Your task to perform on an android device: turn off priority inbox in the gmail app Image 0: 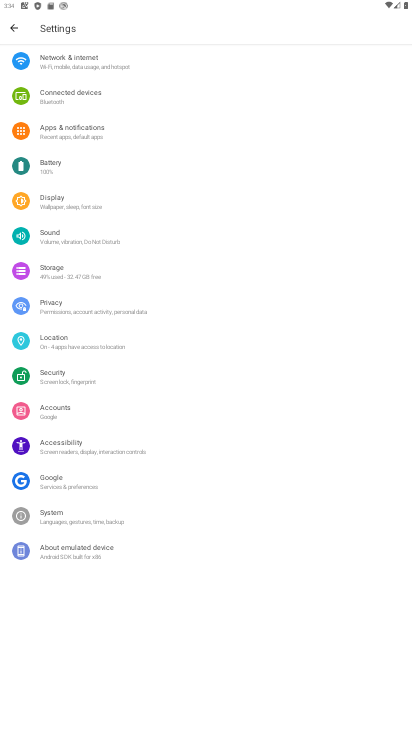
Step 0: press home button
Your task to perform on an android device: turn off priority inbox in the gmail app Image 1: 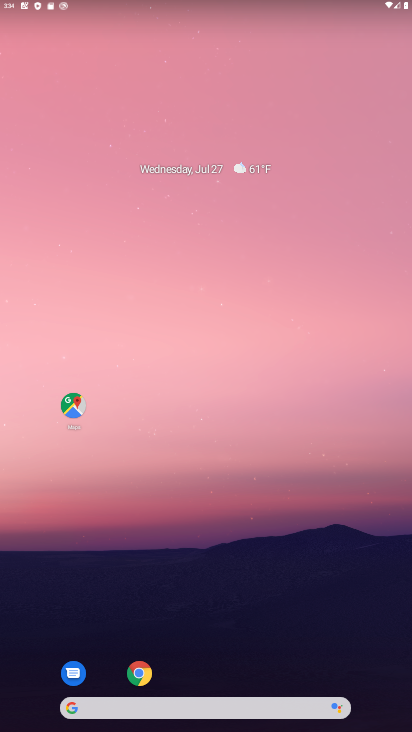
Step 1: drag from (196, 556) to (180, 221)
Your task to perform on an android device: turn off priority inbox in the gmail app Image 2: 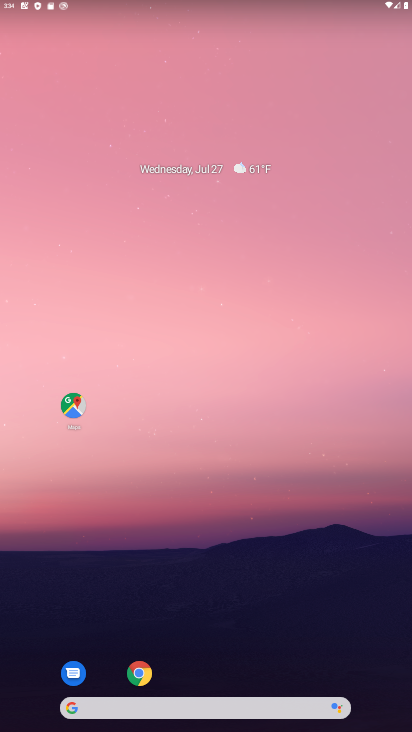
Step 2: drag from (289, 607) to (246, 63)
Your task to perform on an android device: turn off priority inbox in the gmail app Image 3: 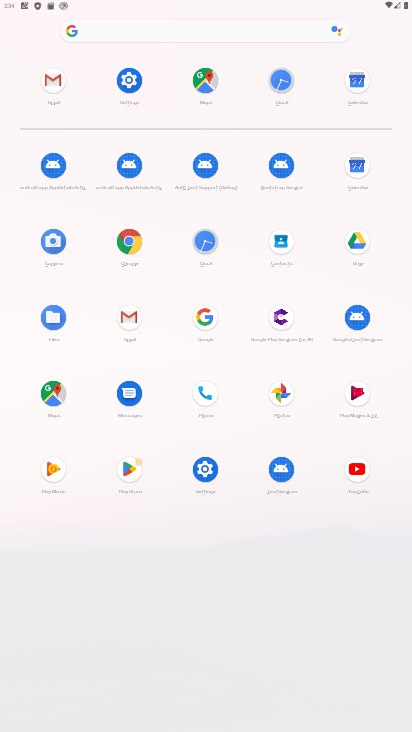
Step 3: click (128, 323)
Your task to perform on an android device: turn off priority inbox in the gmail app Image 4: 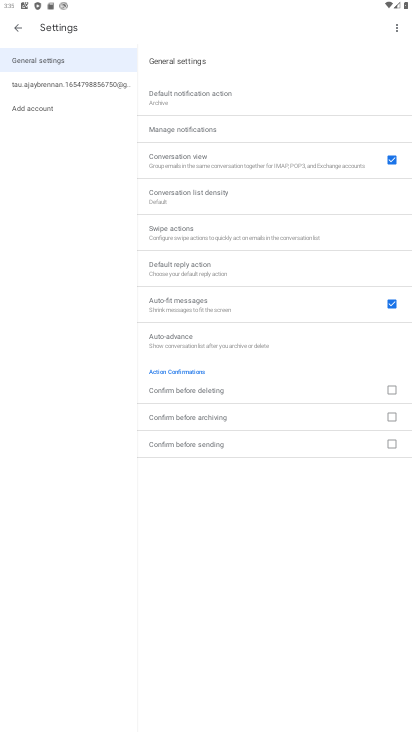
Step 4: click (100, 84)
Your task to perform on an android device: turn off priority inbox in the gmail app Image 5: 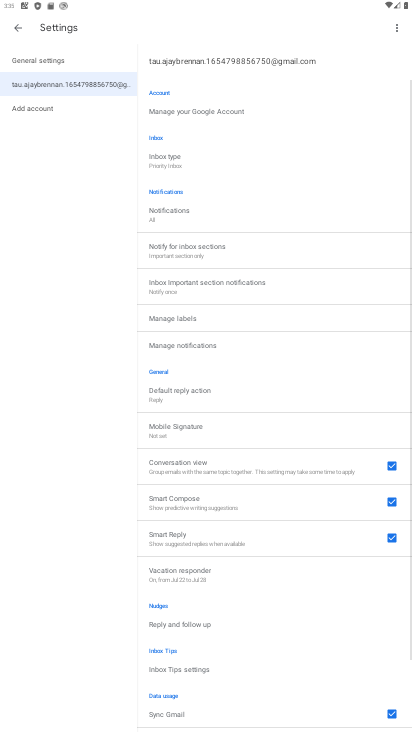
Step 5: click (193, 160)
Your task to perform on an android device: turn off priority inbox in the gmail app Image 6: 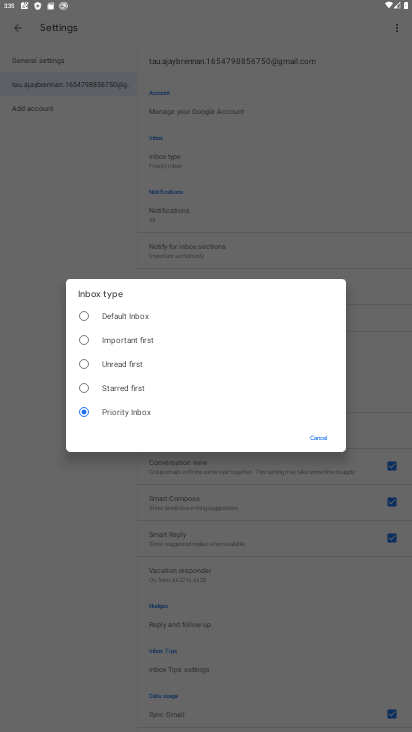
Step 6: click (100, 313)
Your task to perform on an android device: turn off priority inbox in the gmail app Image 7: 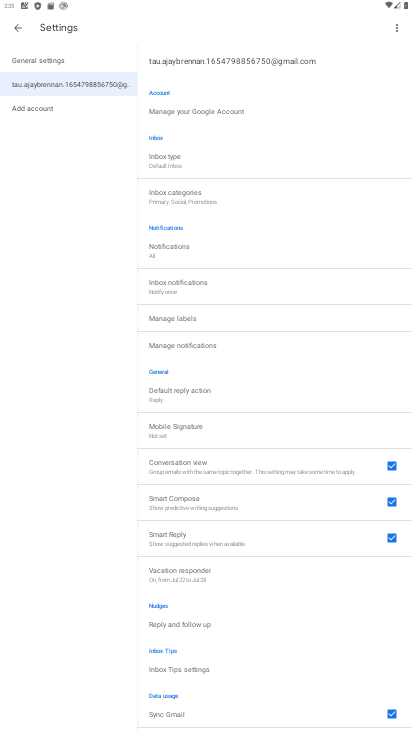
Step 7: task complete